Your task to perform on an android device: turn on the 24-hour format for clock Image 0: 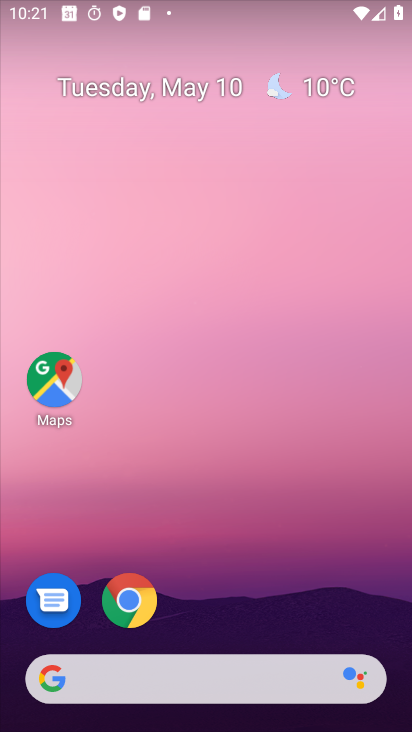
Step 0: drag from (288, 613) to (323, 94)
Your task to perform on an android device: turn on the 24-hour format for clock Image 1: 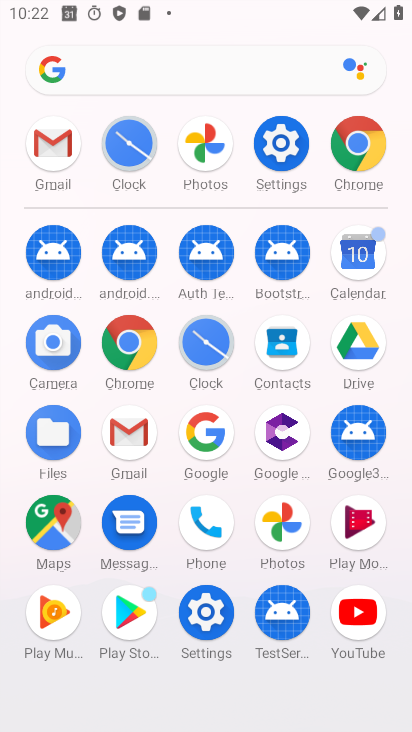
Step 1: click (198, 356)
Your task to perform on an android device: turn on the 24-hour format for clock Image 2: 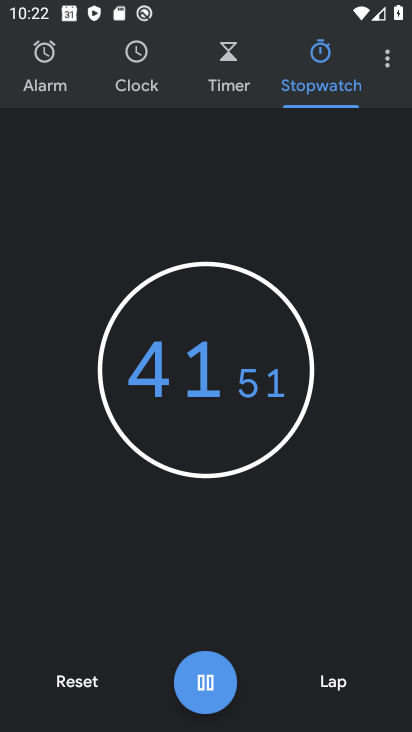
Step 2: click (380, 70)
Your task to perform on an android device: turn on the 24-hour format for clock Image 3: 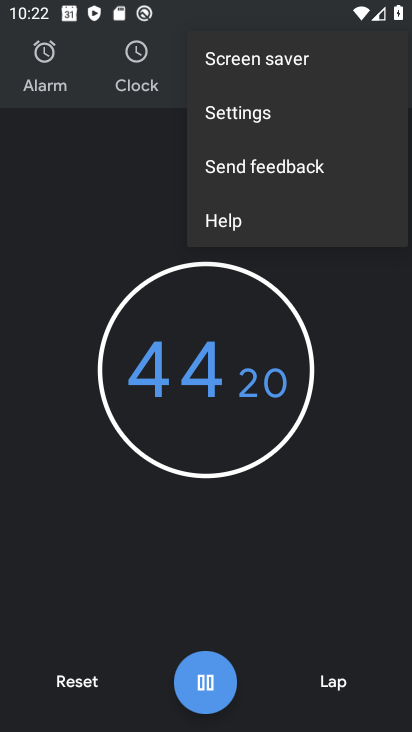
Step 3: click (268, 115)
Your task to perform on an android device: turn on the 24-hour format for clock Image 4: 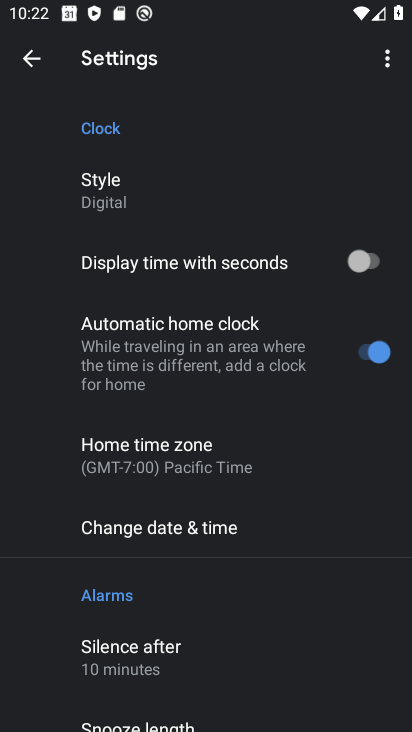
Step 4: click (190, 538)
Your task to perform on an android device: turn on the 24-hour format for clock Image 5: 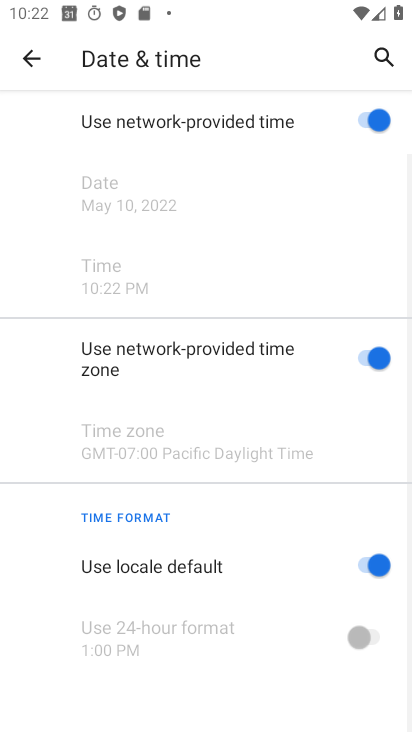
Step 5: drag from (219, 583) to (245, 257)
Your task to perform on an android device: turn on the 24-hour format for clock Image 6: 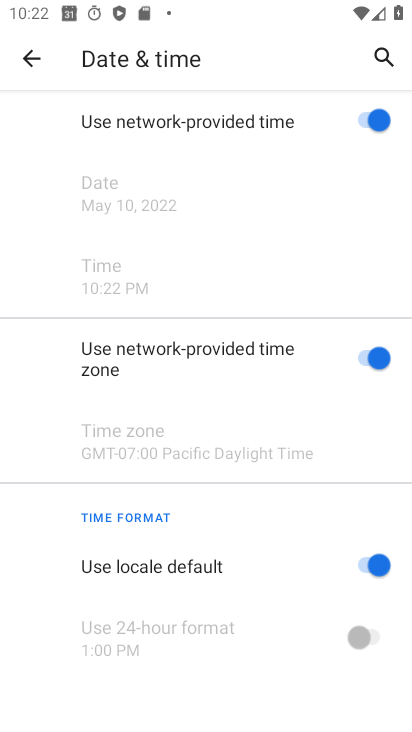
Step 6: click (376, 642)
Your task to perform on an android device: turn on the 24-hour format for clock Image 7: 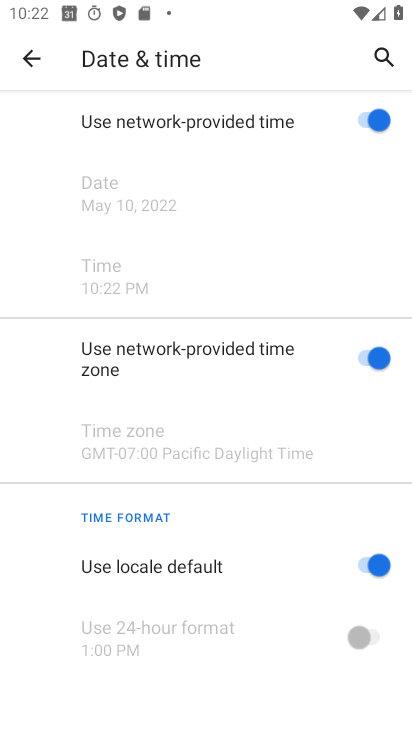
Step 7: click (365, 639)
Your task to perform on an android device: turn on the 24-hour format for clock Image 8: 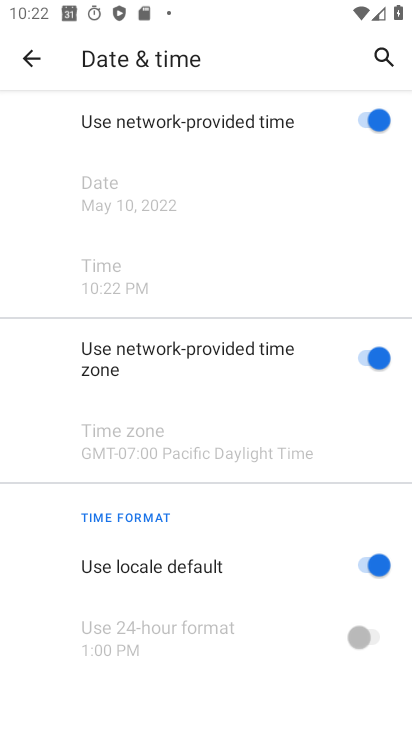
Step 8: click (369, 569)
Your task to perform on an android device: turn on the 24-hour format for clock Image 9: 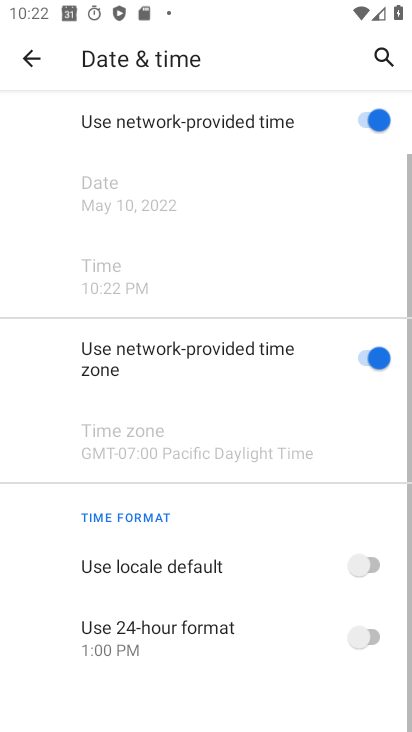
Step 9: click (356, 644)
Your task to perform on an android device: turn on the 24-hour format for clock Image 10: 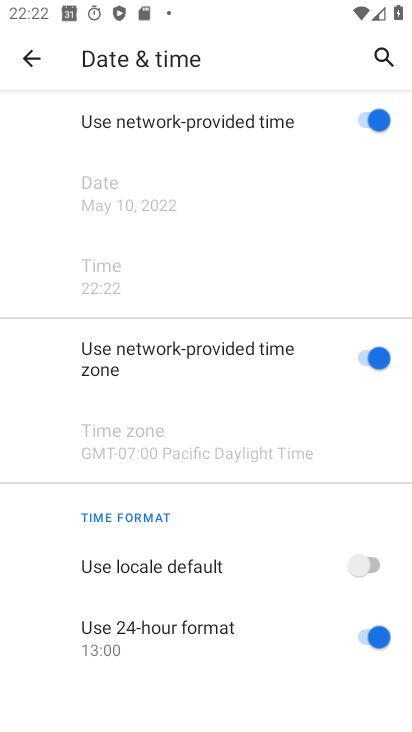
Step 10: task complete